Your task to perform on an android device: Go to accessibility settings Image 0: 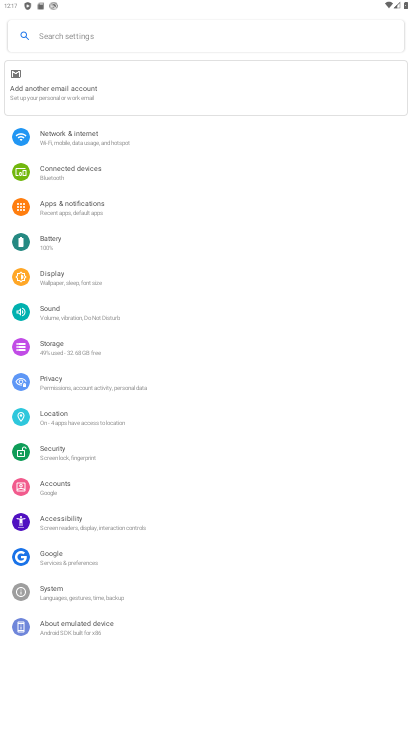
Step 0: press home button
Your task to perform on an android device: Go to accessibility settings Image 1: 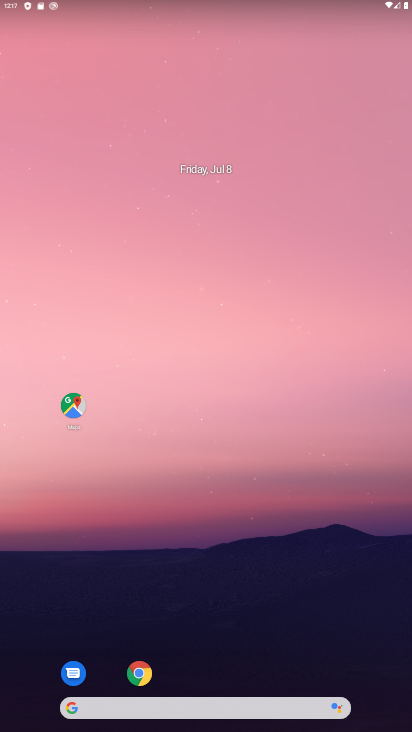
Step 1: drag from (212, 663) to (257, 203)
Your task to perform on an android device: Go to accessibility settings Image 2: 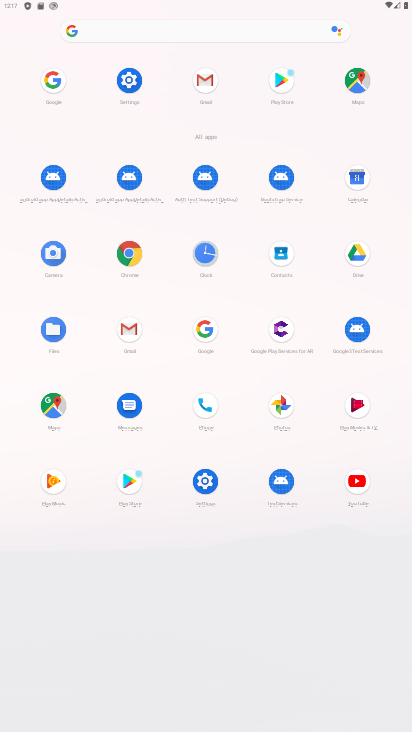
Step 2: click (205, 484)
Your task to perform on an android device: Go to accessibility settings Image 3: 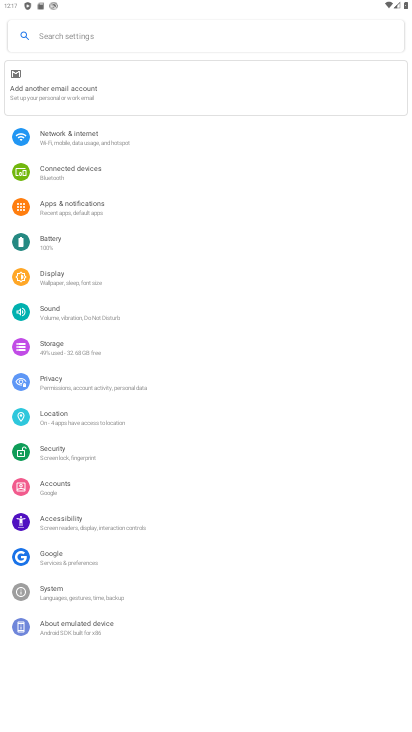
Step 3: click (91, 517)
Your task to perform on an android device: Go to accessibility settings Image 4: 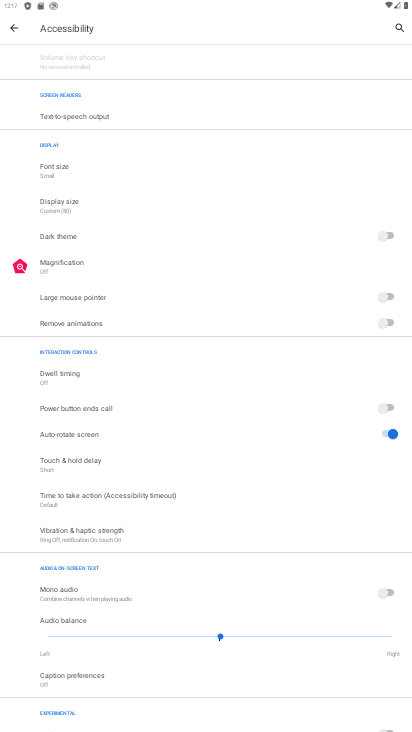
Step 4: task complete